Your task to perform on an android device: turn on translation in the chrome app Image 0: 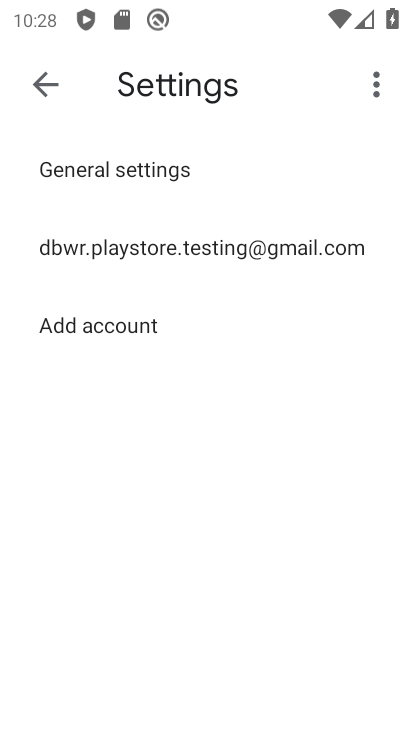
Step 0: press back button
Your task to perform on an android device: turn on translation in the chrome app Image 1: 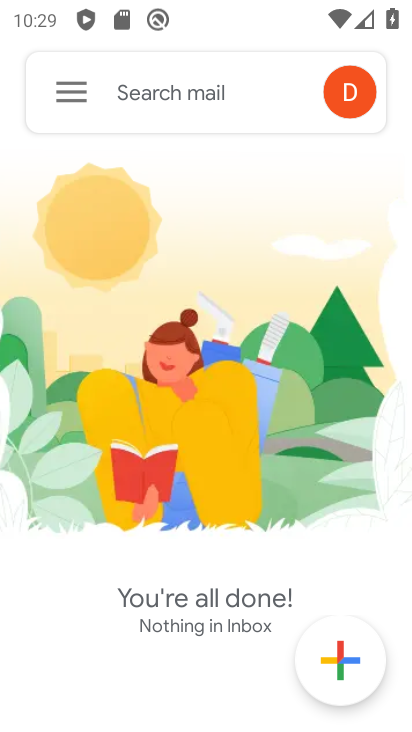
Step 1: press home button
Your task to perform on an android device: turn on translation in the chrome app Image 2: 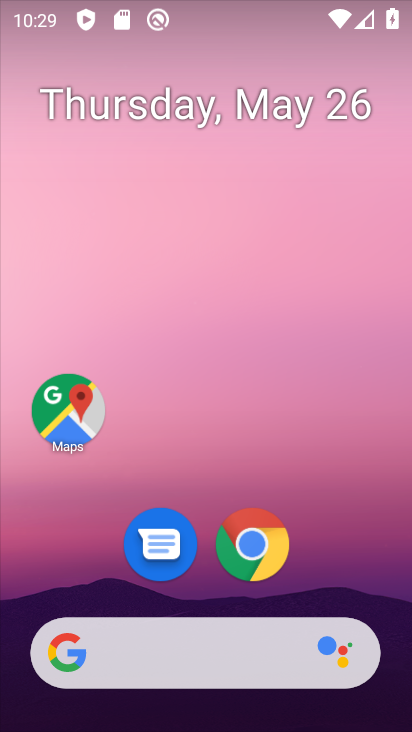
Step 2: drag from (334, 575) to (263, 49)
Your task to perform on an android device: turn on translation in the chrome app Image 3: 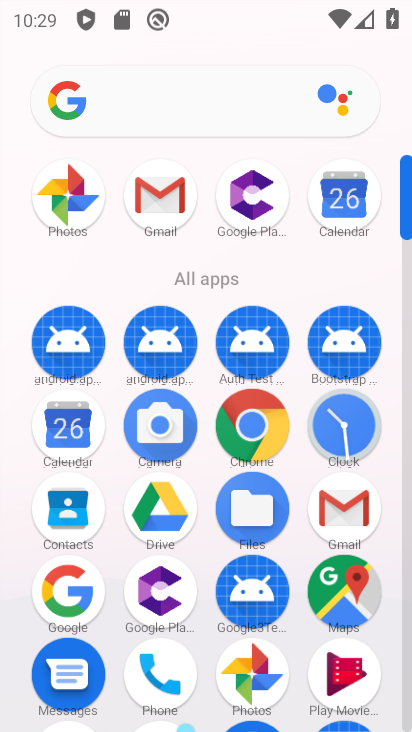
Step 3: click (250, 422)
Your task to perform on an android device: turn on translation in the chrome app Image 4: 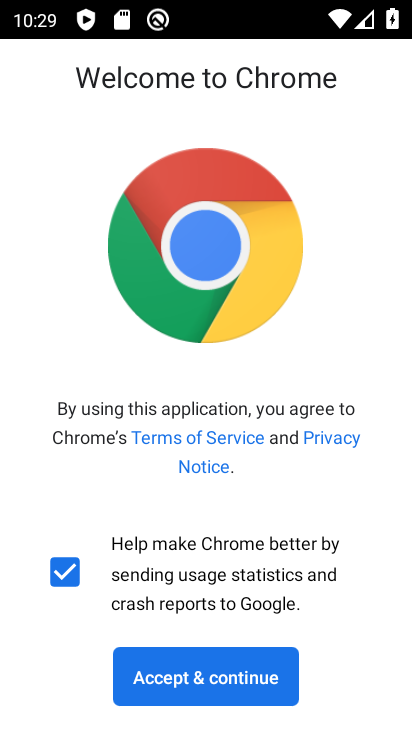
Step 4: click (248, 663)
Your task to perform on an android device: turn on translation in the chrome app Image 5: 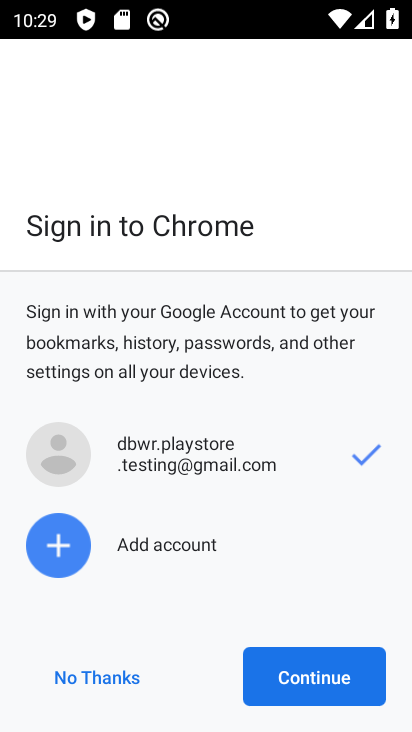
Step 5: click (307, 671)
Your task to perform on an android device: turn on translation in the chrome app Image 6: 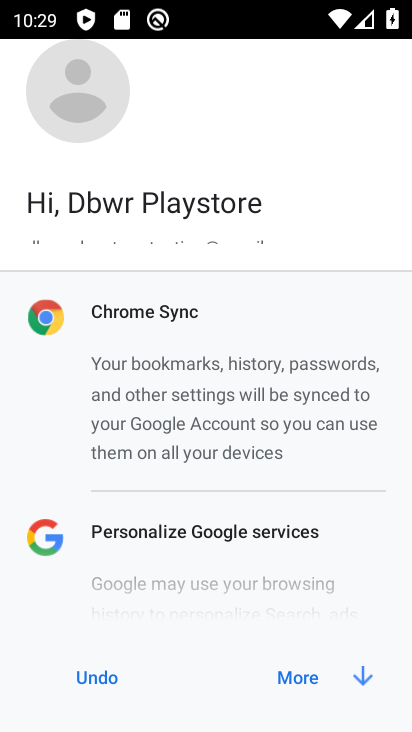
Step 6: click (307, 671)
Your task to perform on an android device: turn on translation in the chrome app Image 7: 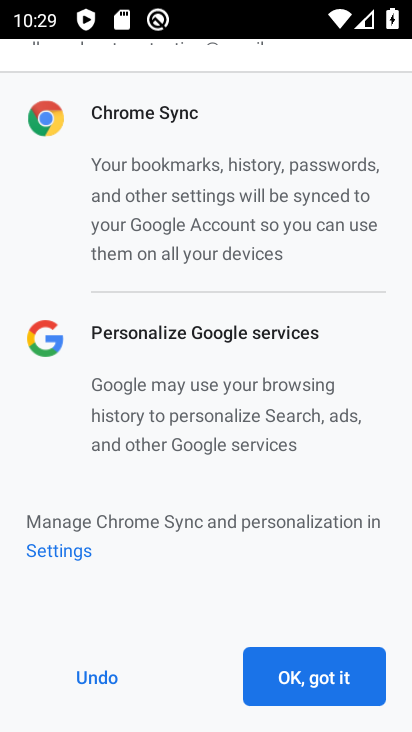
Step 7: click (307, 671)
Your task to perform on an android device: turn on translation in the chrome app Image 8: 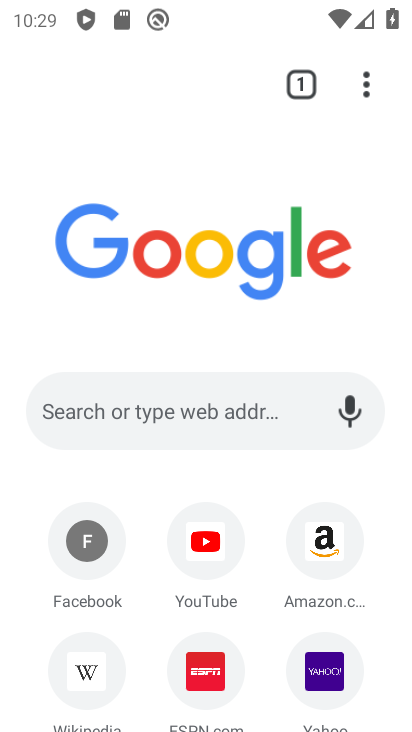
Step 8: drag from (364, 87) to (110, 584)
Your task to perform on an android device: turn on translation in the chrome app Image 9: 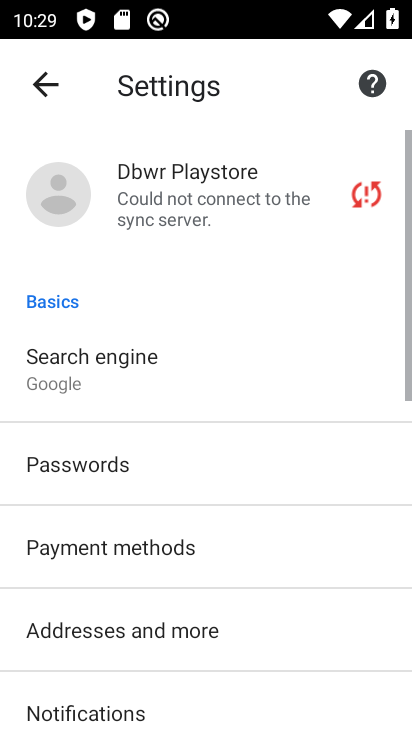
Step 9: drag from (213, 564) to (187, 146)
Your task to perform on an android device: turn on translation in the chrome app Image 10: 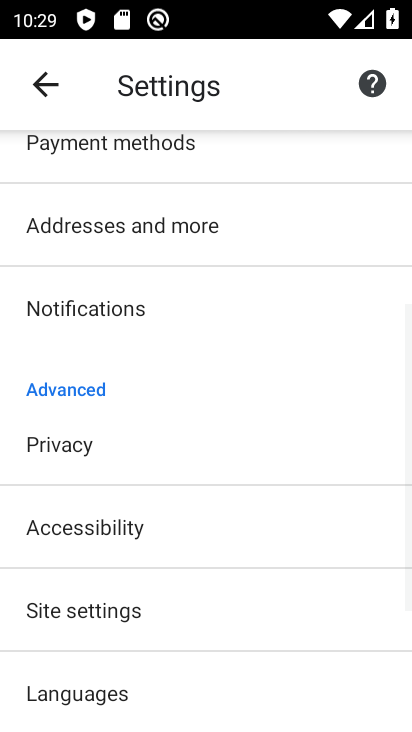
Step 10: drag from (198, 586) to (189, 207)
Your task to perform on an android device: turn on translation in the chrome app Image 11: 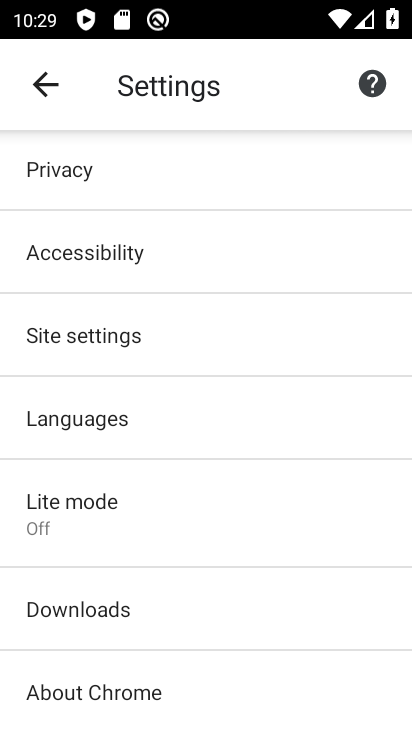
Step 11: click (124, 407)
Your task to perform on an android device: turn on translation in the chrome app Image 12: 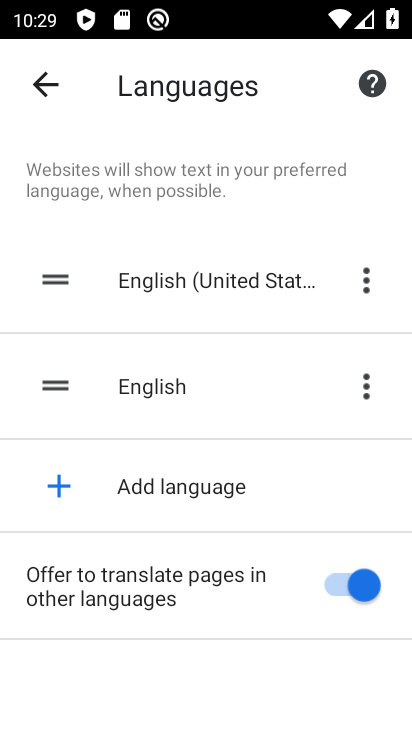
Step 12: task complete